Your task to perform on an android device: Open Maps and search for coffee Image 0: 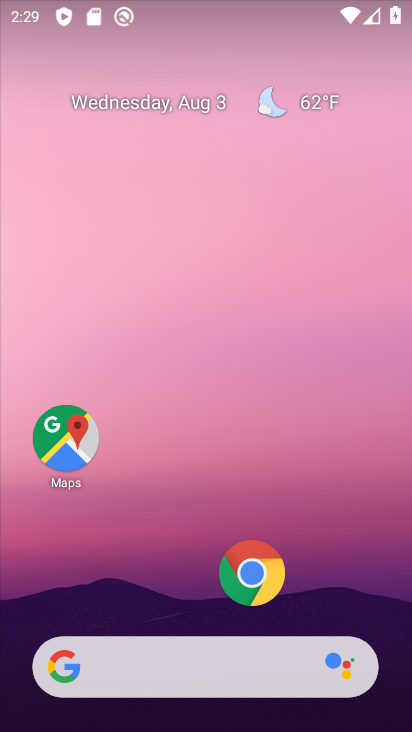
Step 0: click (43, 442)
Your task to perform on an android device: Open Maps and search for coffee Image 1: 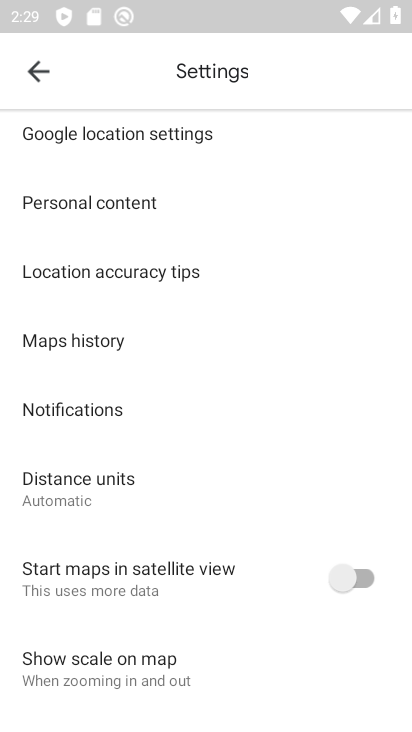
Step 1: click (39, 79)
Your task to perform on an android device: Open Maps and search for coffee Image 2: 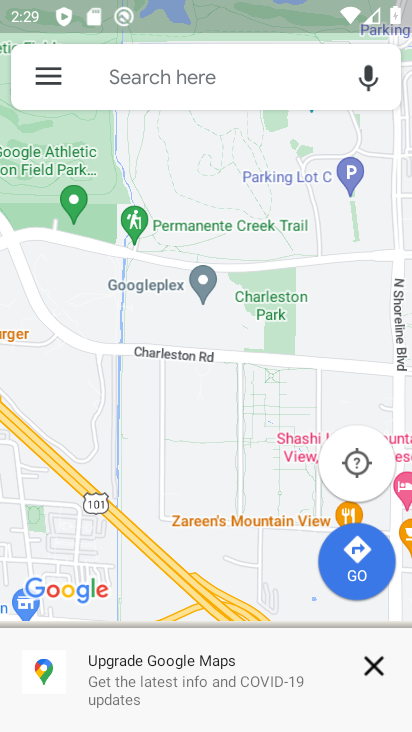
Step 2: click (194, 72)
Your task to perform on an android device: Open Maps and search for coffee Image 3: 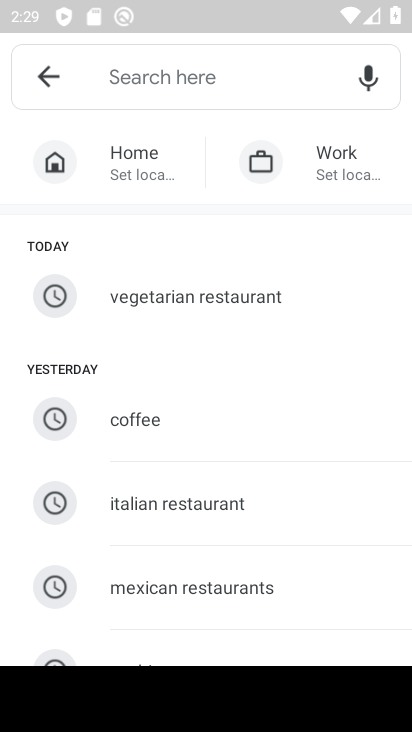
Step 3: type "coffee"
Your task to perform on an android device: Open Maps and search for coffee Image 4: 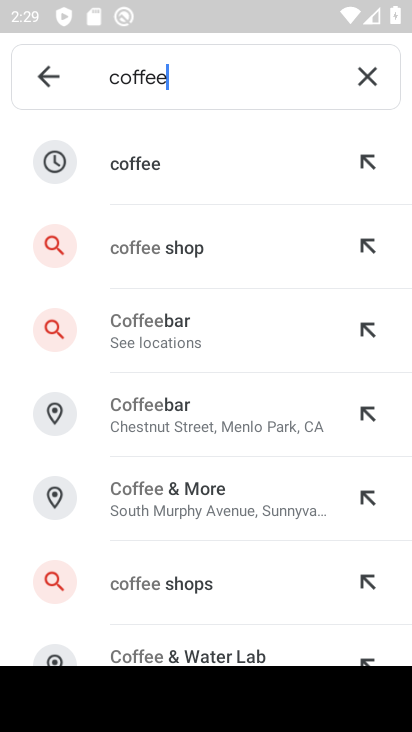
Step 4: click (149, 167)
Your task to perform on an android device: Open Maps and search for coffee Image 5: 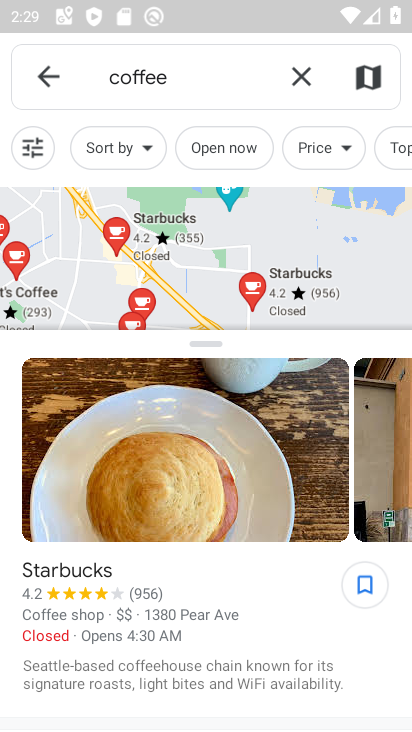
Step 5: task complete